Your task to perform on an android device: turn on translation in the chrome app Image 0: 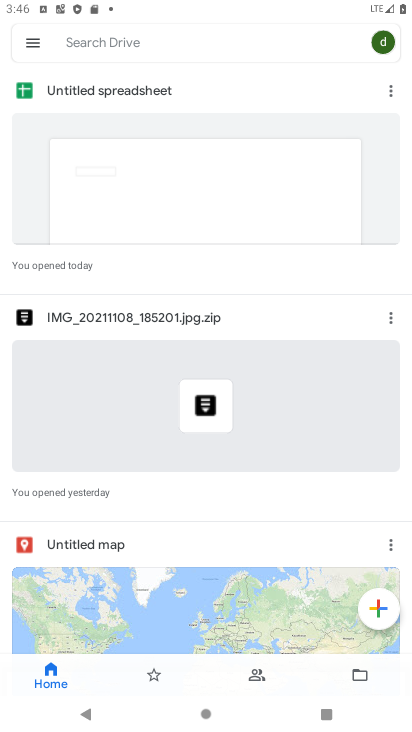
Step 0: press home button
Your task to perform on an android device: turn on translation in the chrome app Image 1: 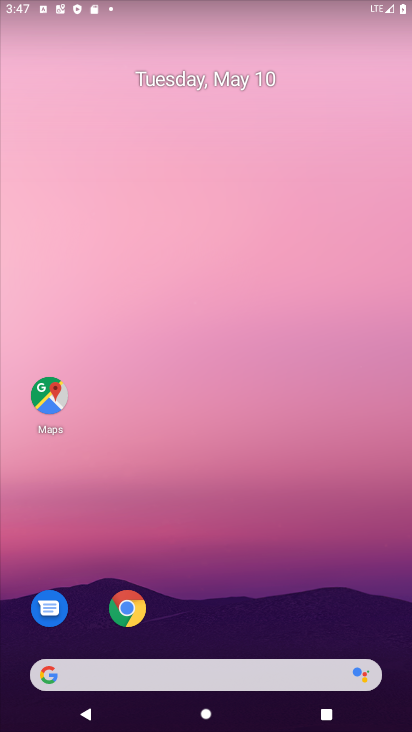
Step 1: click (127, 607)
Your task to perform on an android device: turn on translation in the chrome app Image 2: 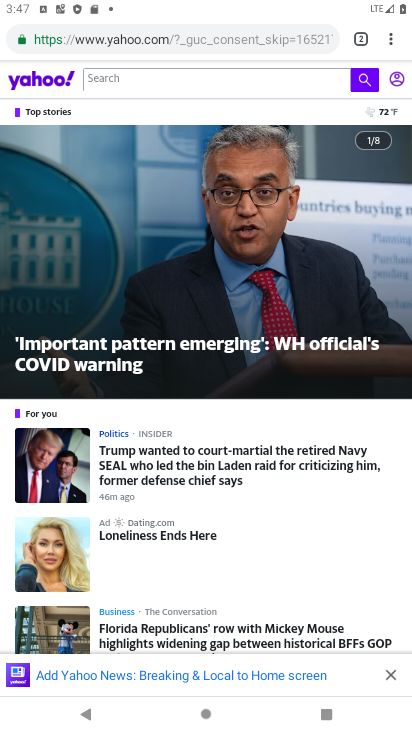
Step 2: click (390, 41)
Your task to perform on an android device: turn on translation in the chrome app Image 3: 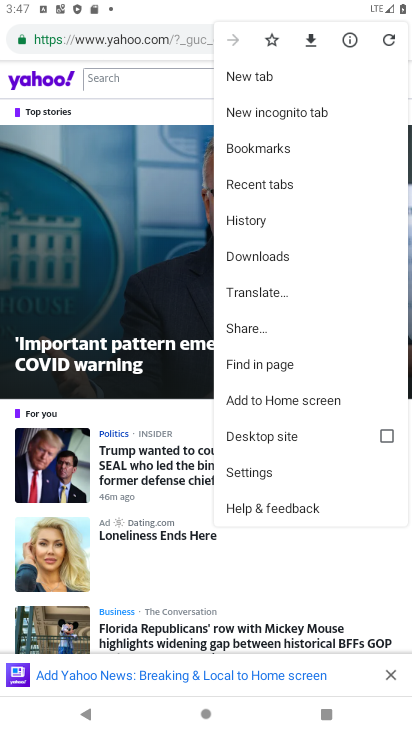
Step 3: click (257, 472)
Your task to perform on an android device: turn on translation in the chrome app Image 4: 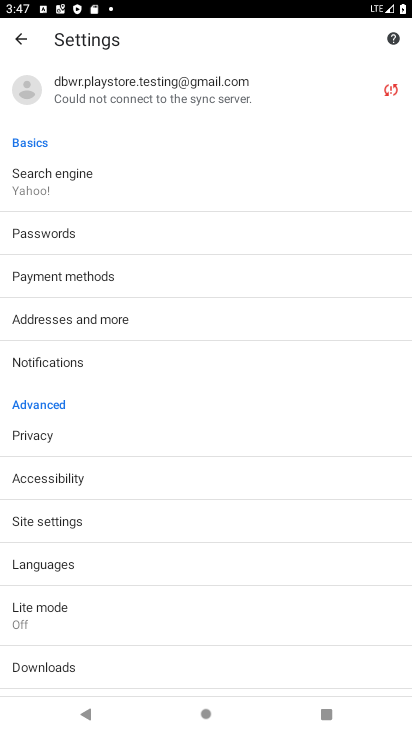
Step 4: click (47, 565)
Your task to perform on an android device: turn on translation in the chrome app Image 5: 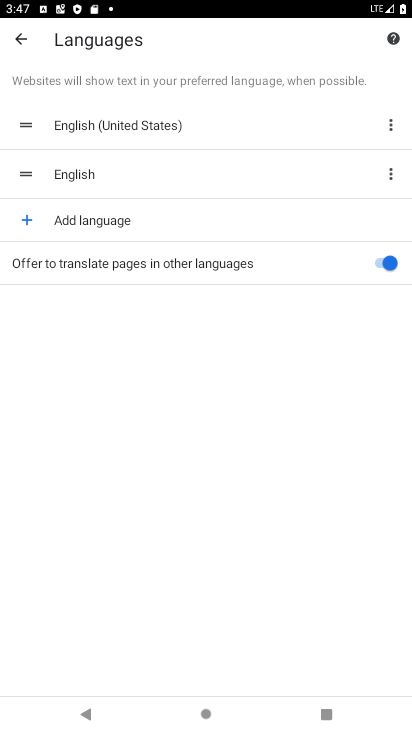
Step 5: task complete